Your task to perform on an android device: Open Reddit.com Image 0: 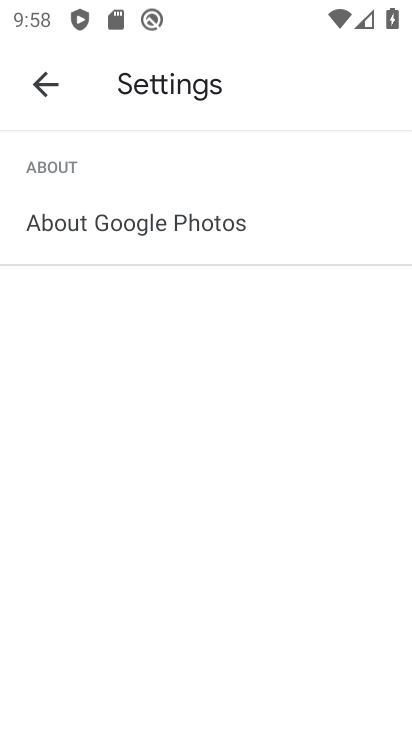
Step 0: press home button
Your task to perform on an android device: Open Reddit.com Image 1: 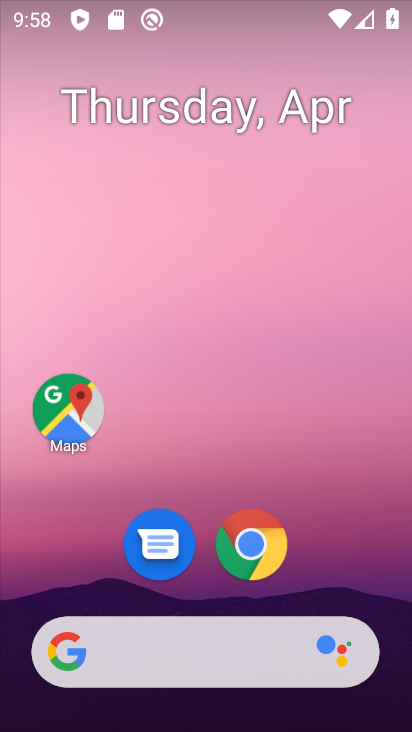
Step 1: click (240, 547)
Your task to perform on an android device: Open Reddit.com Image 2: 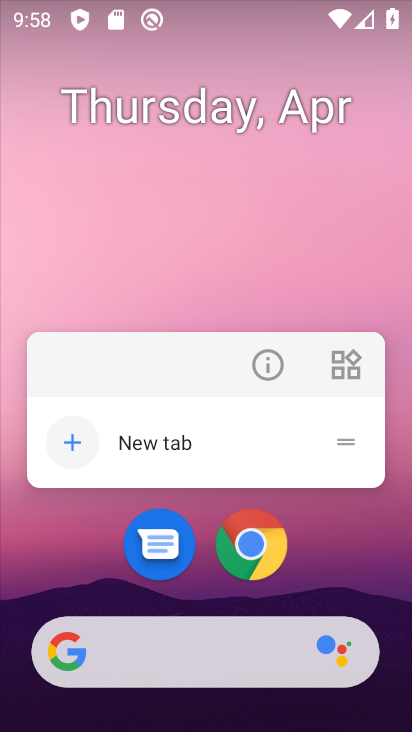
Step 2: click (277, 360)
Your task to perform on an android device: Open Reddit.com Image 3: 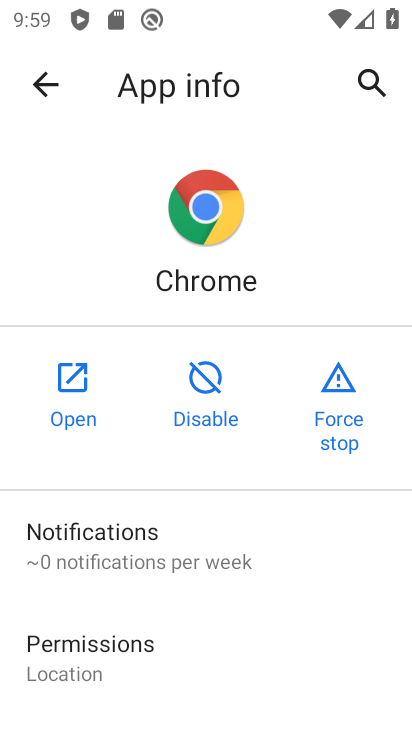
Step 3: click (69, 375)
Your task to perform on an android device: Open Reddit.com Image 4: 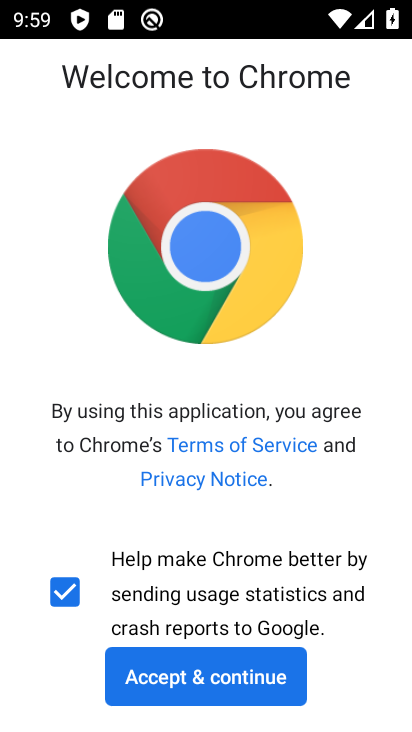
Step 4: click (208, 698)
Your task to perform on an android device: Open Reddit.com Image 5: 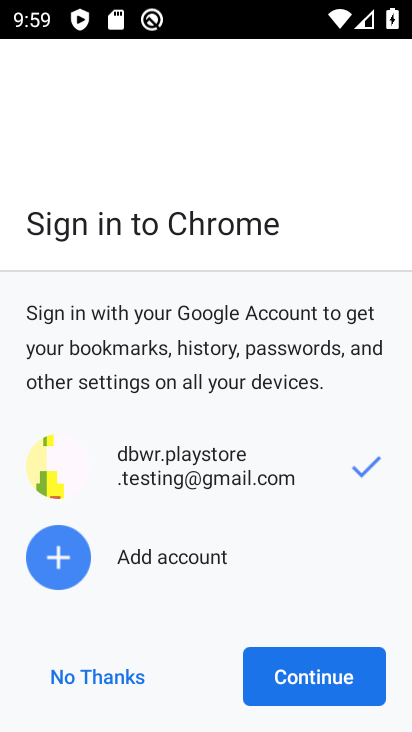
Step 5: click (107, 672)
Your task to perform on an android device: Open Reddit.com Image 6: 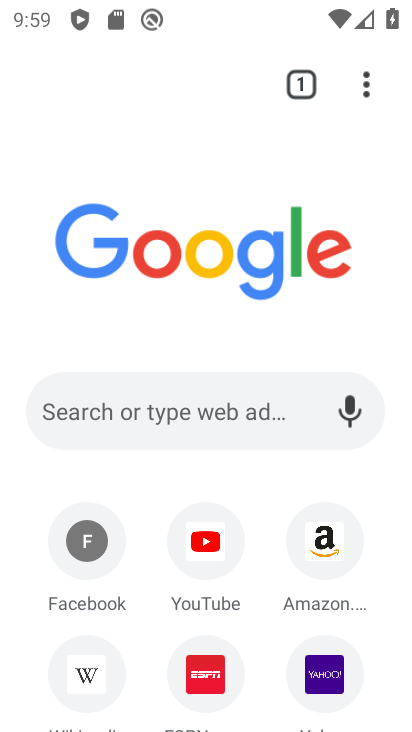
Step 6: click (164, 413)
Your task to perform on an android device: Open Reddit.com Image 7: 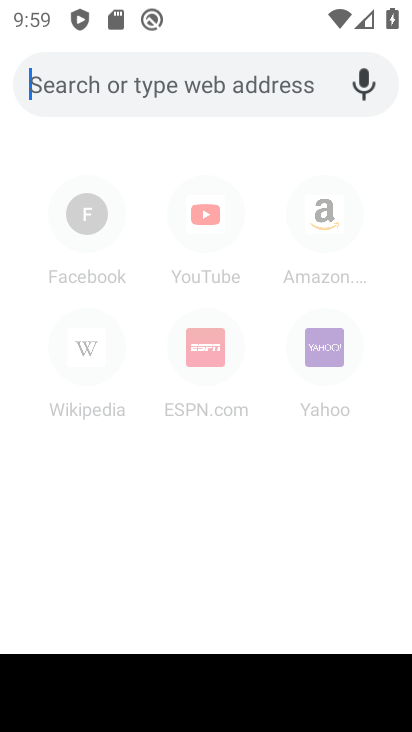
Step 7: type "Reddit.com"
Your task to perform on an android device: Open Reddit.com Image 8: 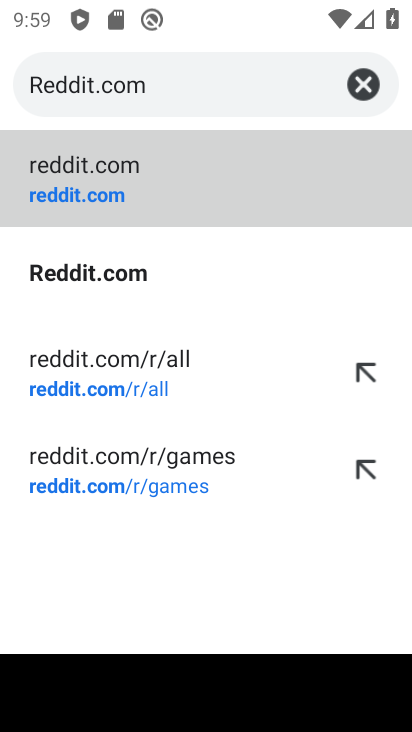
Step 8: task complete